Your task to perform on an android device: turn off notifications in google photos Image 0: 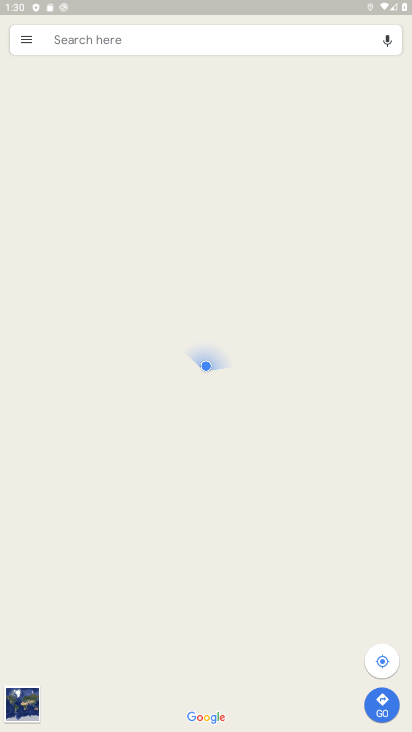
Step 0: press home button
Your task to perform on an android device: turn off notifications in google photos Image 1: 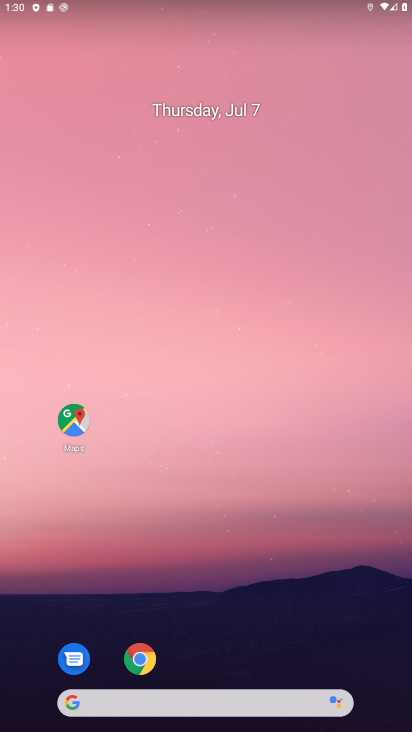
Step 1: drag from (208, 646) to (217, 185)
Your task to perform on an android device: turn off notifications in google photos Image 2: 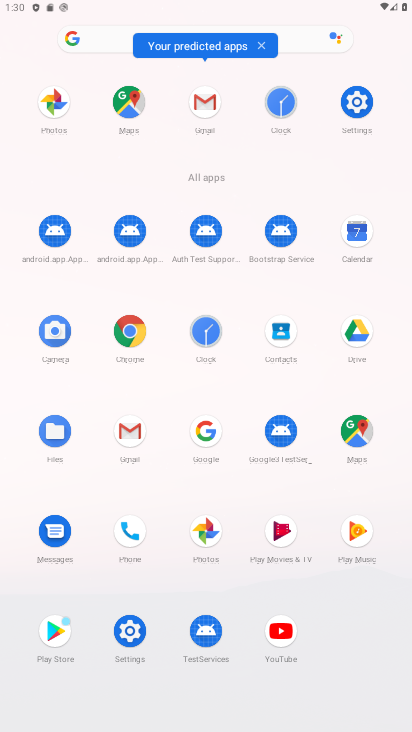
Step 2: click (205, 525)
Your task to perform on an android device: turn off notifications in google photos Image 3: 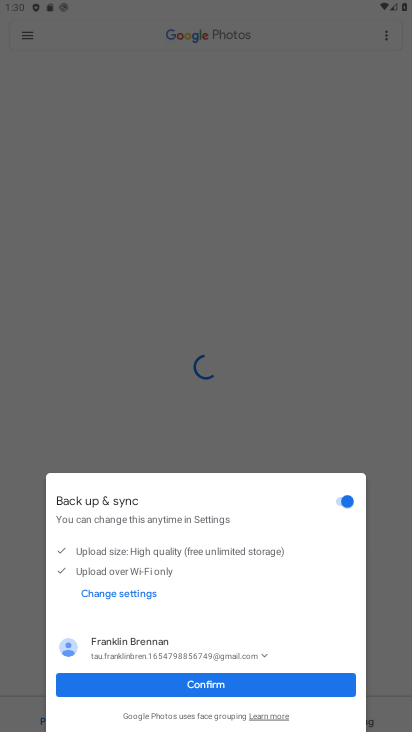
Step 3: click (193, 683)
Your task to perform on an android device: turn off notifications in google photos Image 4: 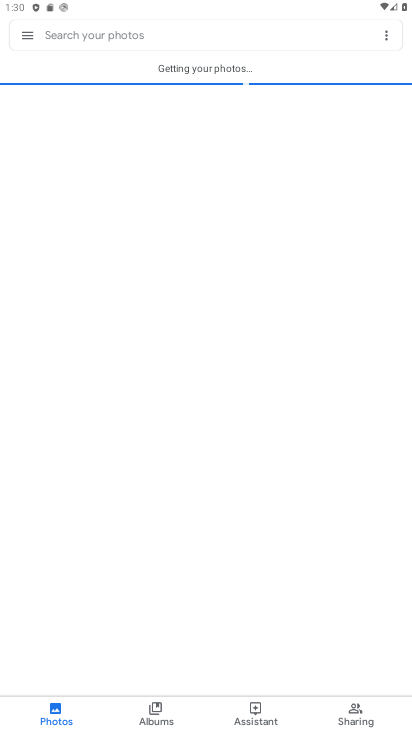
Step 4: click (381, 33)
Your task to perform on an android device: turn off notifications in google photos Image 5: 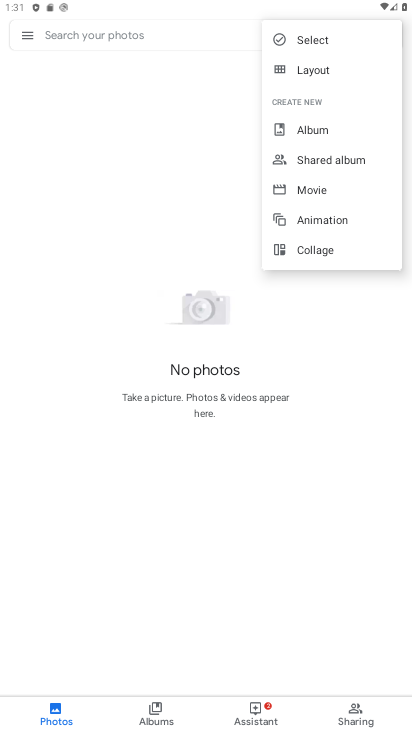
Step 5: click (31, 35)
Your task to perform on an android device: turn off notifications in google photos Image 6: 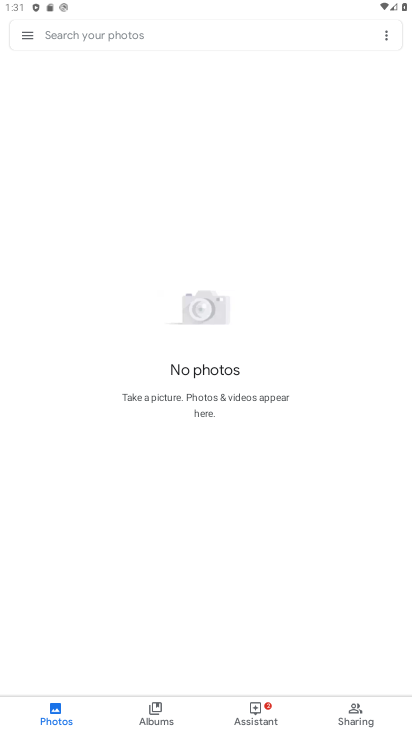
Step 6: click (30, 33)
Your task to perform on an android device: turn off notifications in google photos Image 7: 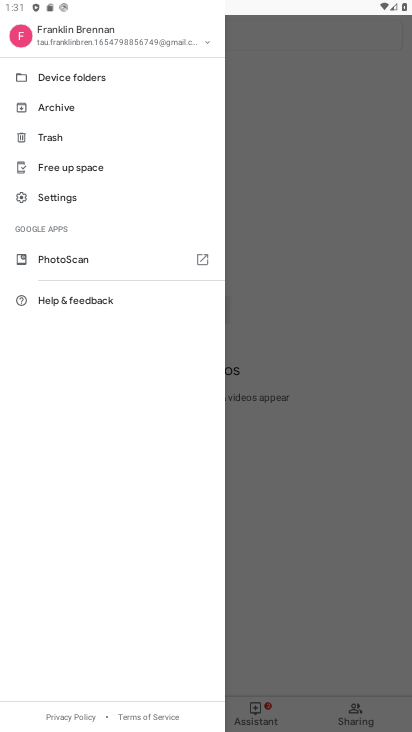
Step 7: click (47, 201)
Your task to perform on an android device: turn off notifications in google photos Image 8: 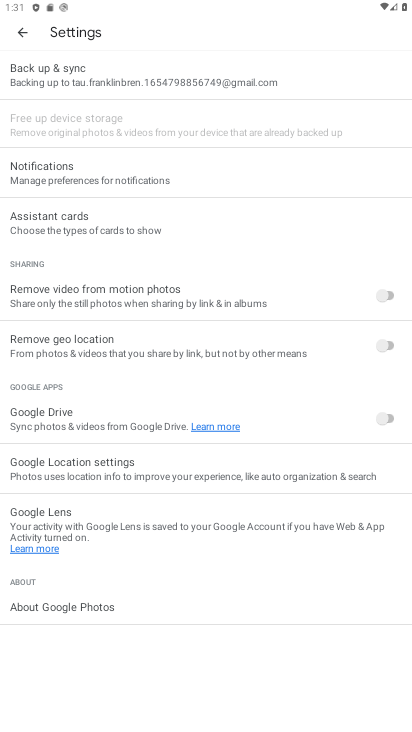
Step 8: click (83, 167)
Your task to perform on an android device: turn off notifications in google photos Image 9: 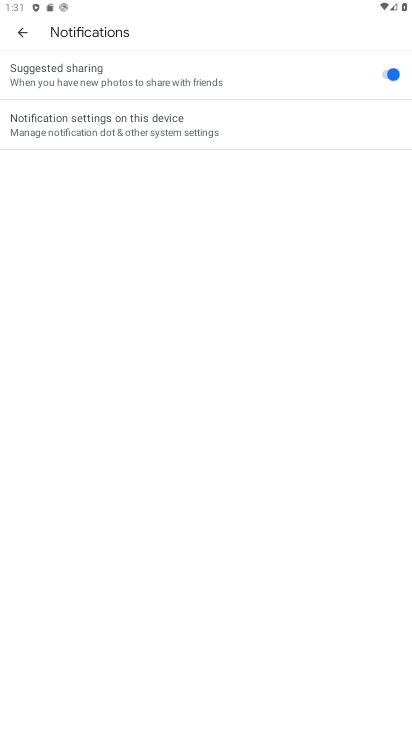
Step 9: click (218, 124)
Your task to perform on an android device: turn off notifications in google photos Image 10: 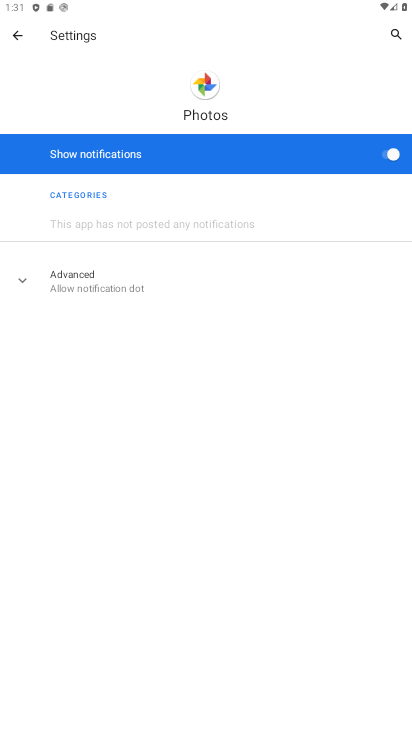
Step 10: click (380, 159)
Your task to perform on an android device: turn off notifications in google photos Image 11: 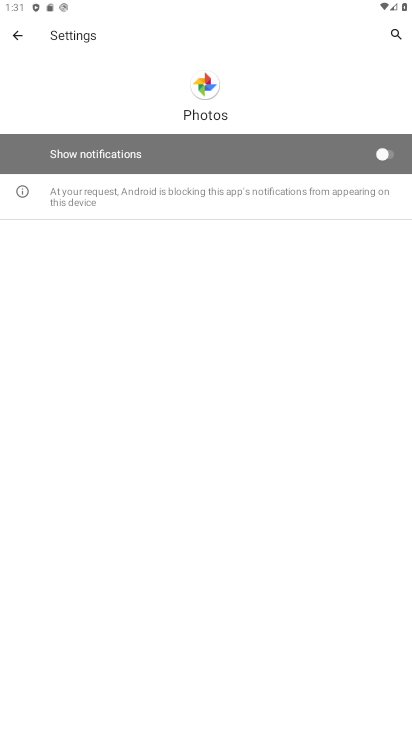
Step 11: task complete